Your task to perform on an android device: install app "Google Play Games" Image 0: 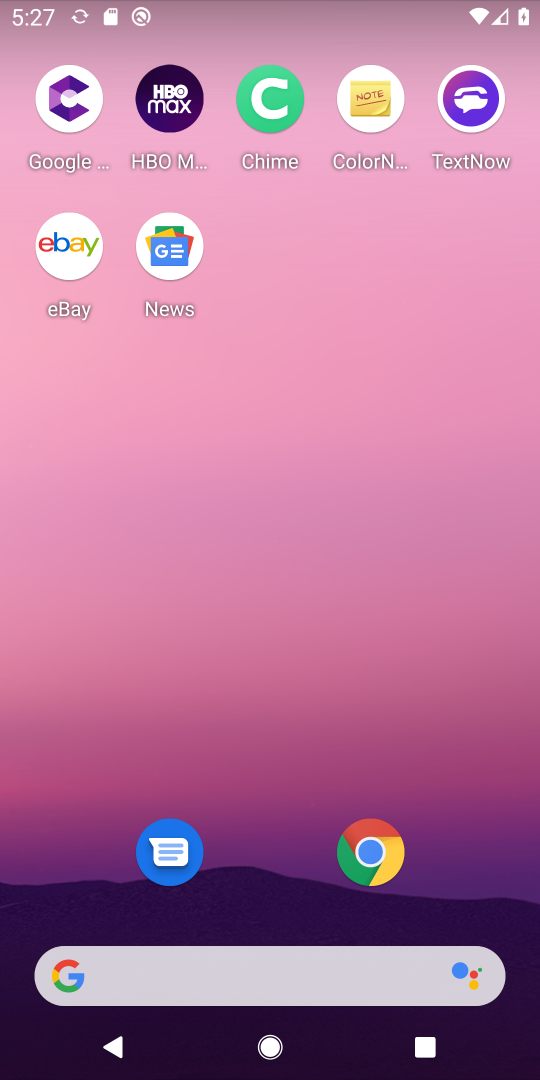
Step 0: drag from (288, 980) to (305, 69)
Your task to perform on an android device: install app "Google Play Games" Image 1: 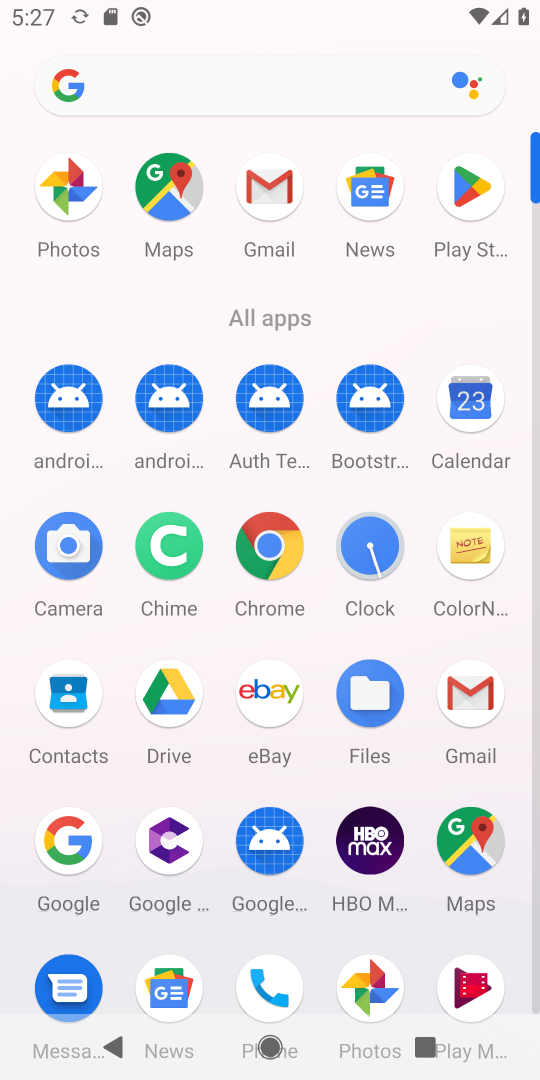
Step 1: click (475, 195)
Your task to perform on an android device: install app "Google Play Games" Image 2: 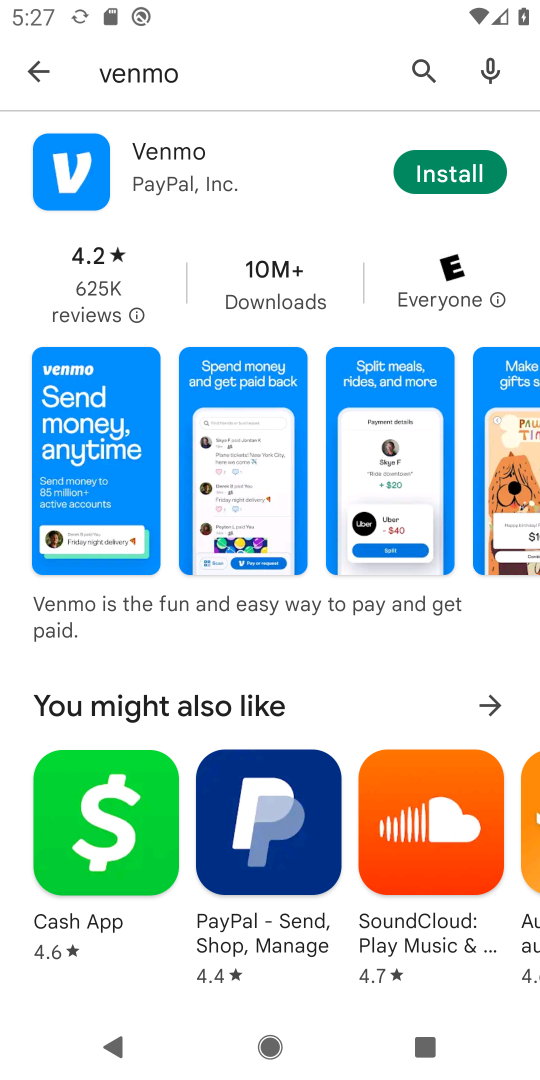
Step 2: press back button
Your task to perform on an android device: install app "Google Play Games" Image 3: 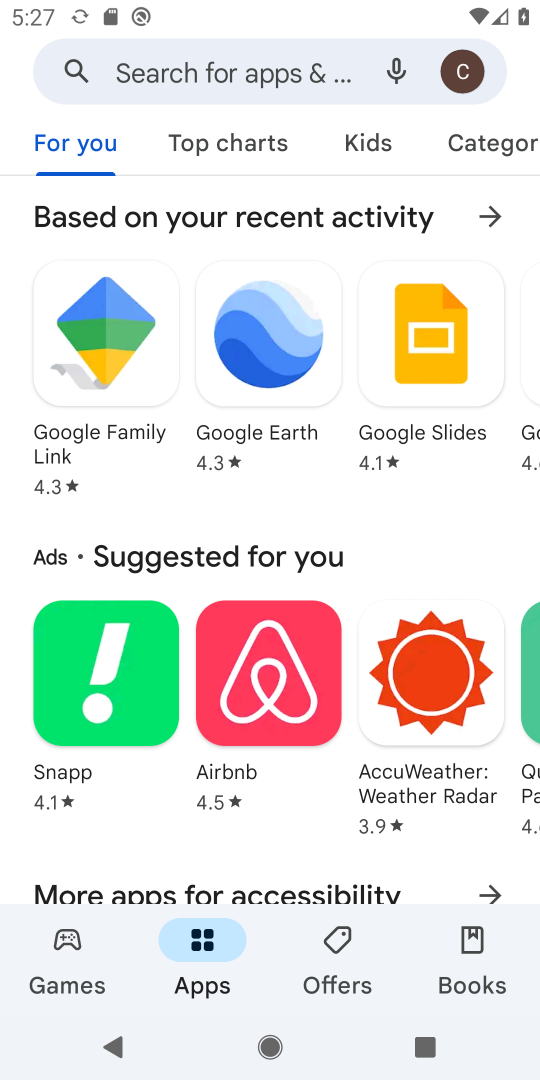
Step 3: click (304, 83)
Your task to perform on an android device: install app "Google Play Games" Image 4: 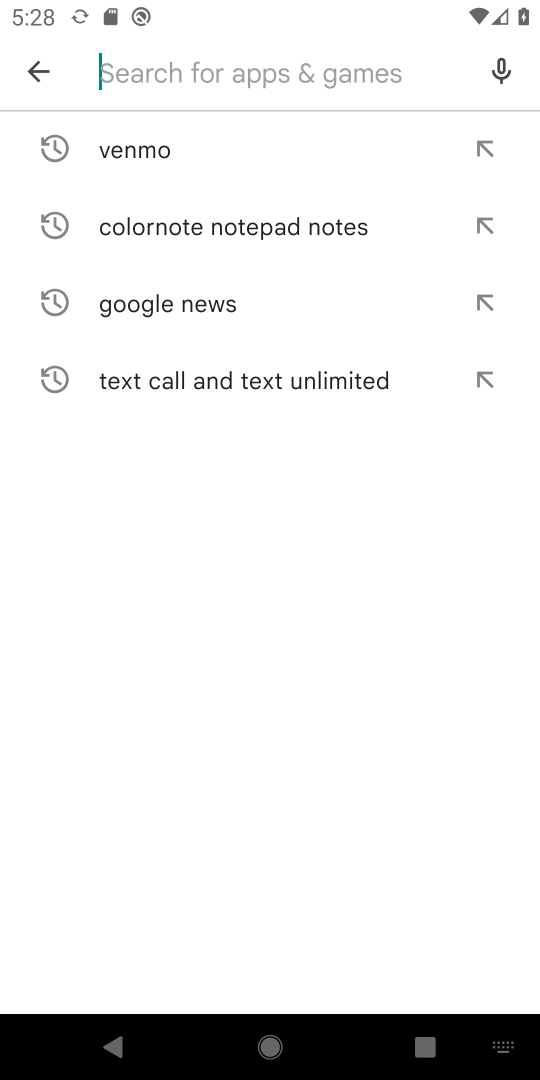
Step 4: type "Google Play Games"
Your task to perform on an android device: install app "Google Play Games" Image 5: 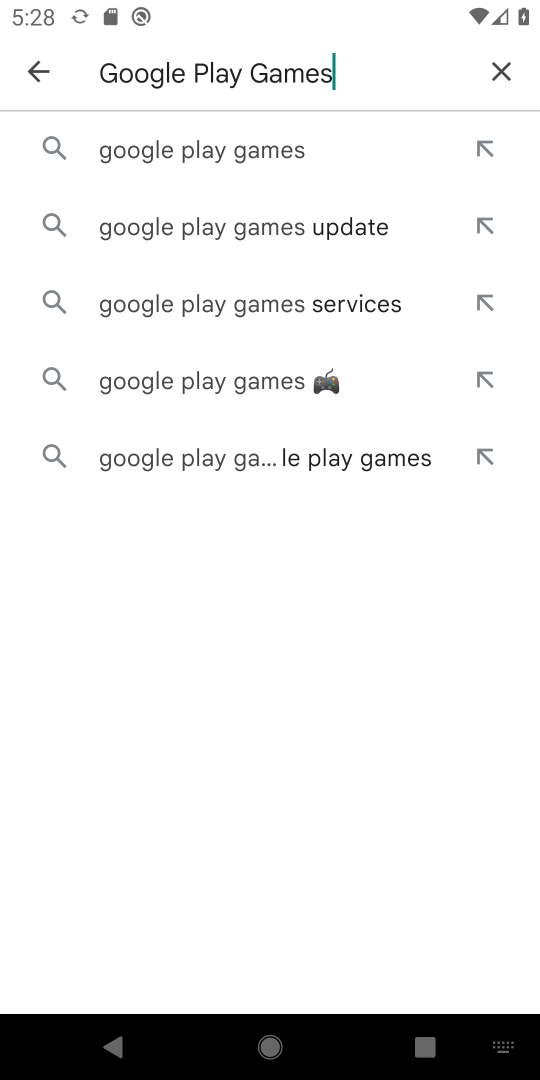
Step 5: click (188, 151)
Your task to perform on an android device: install app "Google Play Games" Image 6: 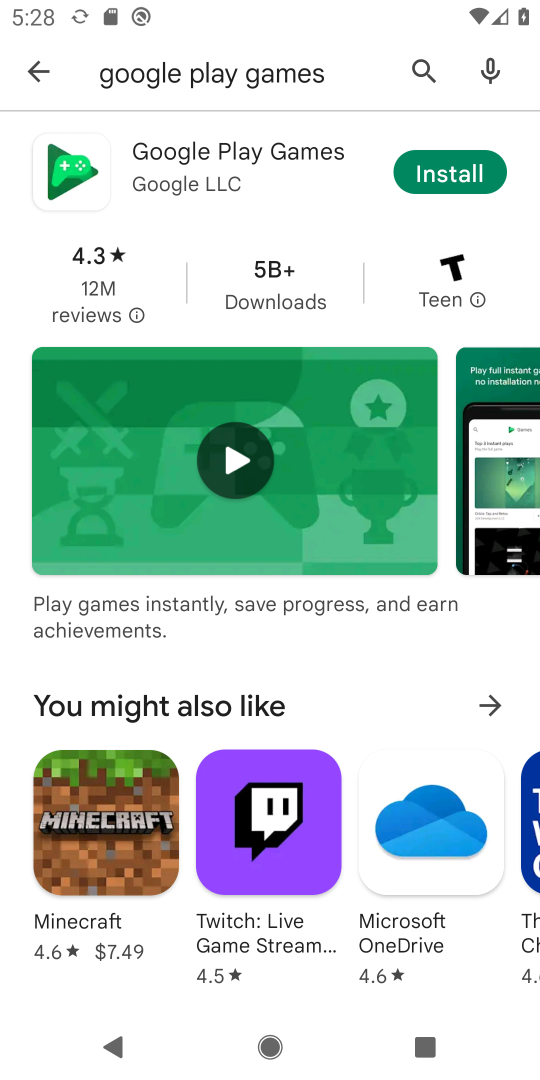
Step 6: click (440, 185)
Your task to perform on an android device: install app "Google Play Games" Image 7: 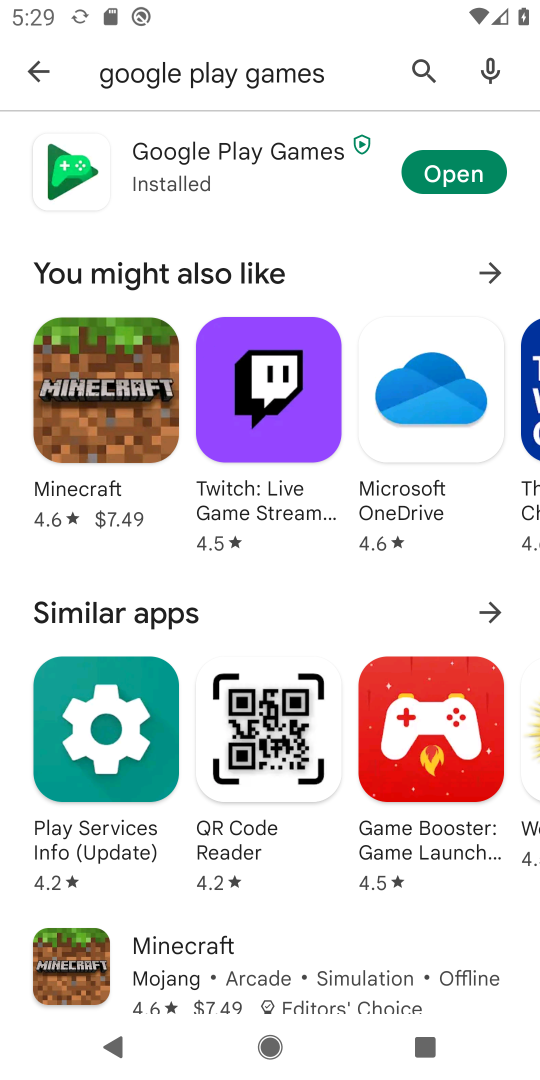
Step 7: task complete